Your task to perform on an android device: When is my next meeting? Image 0: 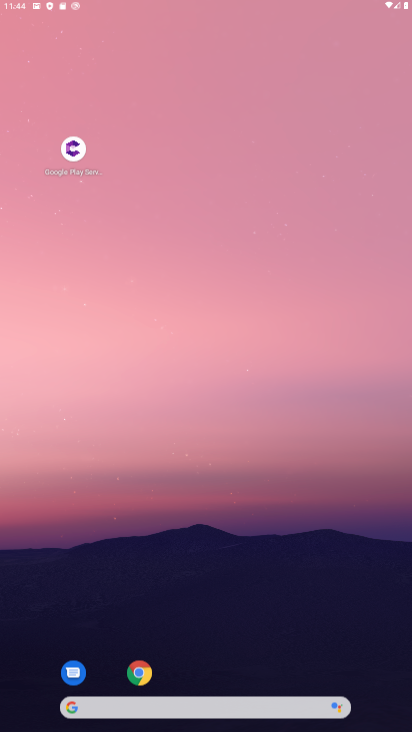
Step 0: press home button
Your task to perform on an android device: When is my next meeting? Image 1: 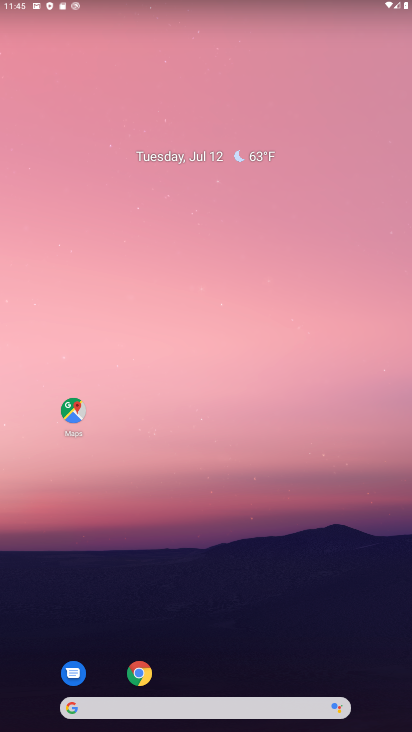
Step 1: drag from (252, 602) to (256, 115)
Your task to perform on an android device: When is my next meeting? Image 2: 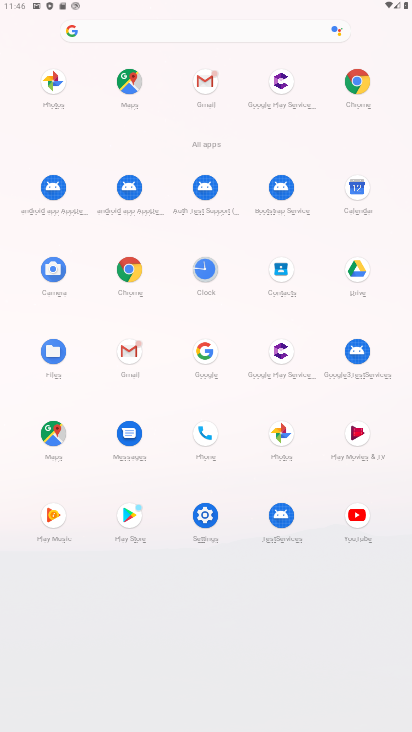
Step 2: click (365, 191)
Your task to perform on an android device: When is my next meeting? Image 3: 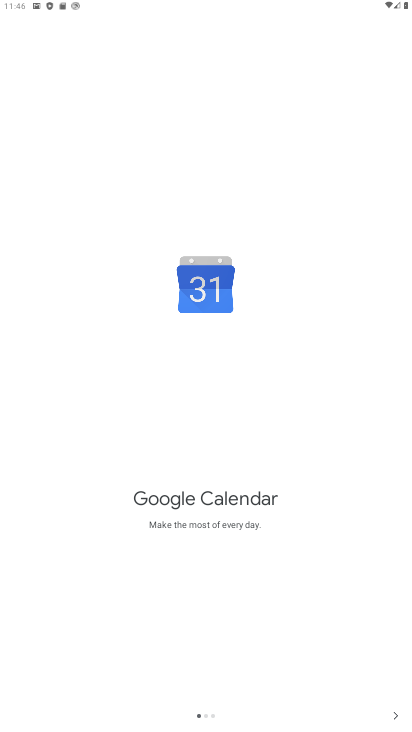
Step 3: click (391, 725)
Your task to perform on an android device: When is my next meeting? Image 4: 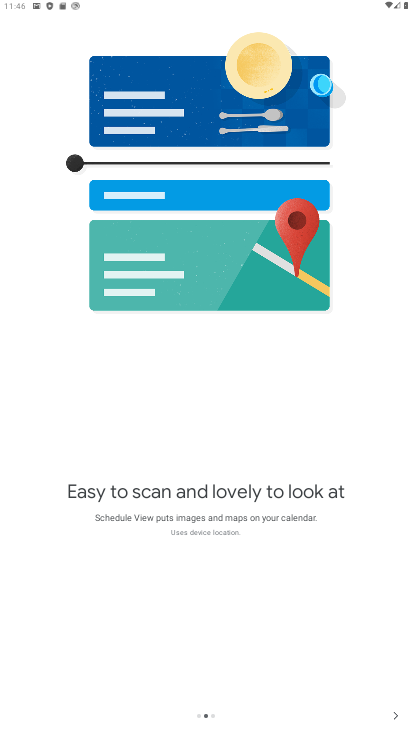
Step 4: click (391, 725)
Your task to perform on an android device: When is my next meeting? Image 5: 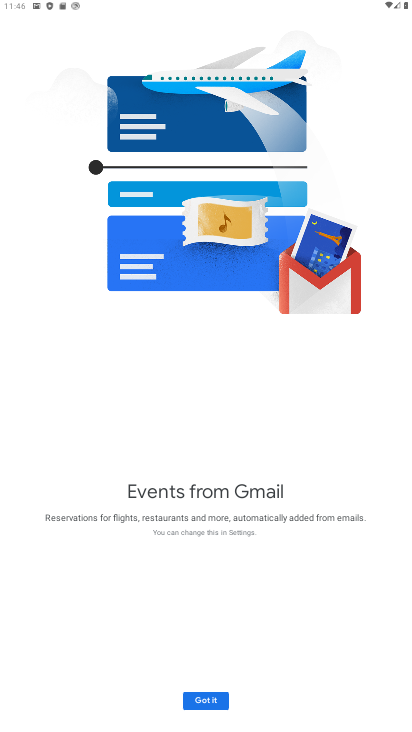
Step 5: click (193, 696)
Your task to perform on an android device: When is my next meeting? Image 6: 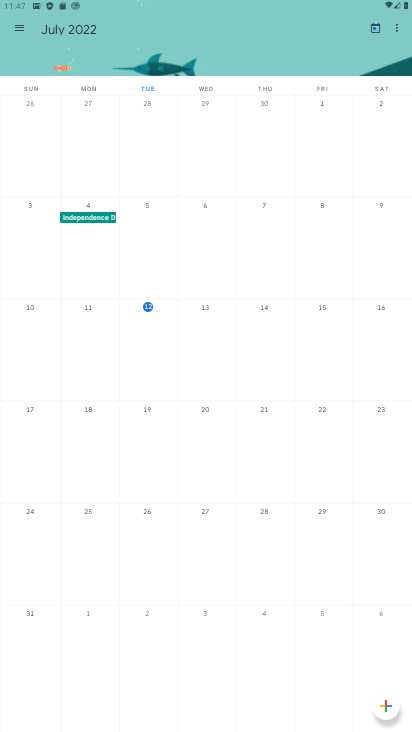
Step 6: click (22, 34)
Your task to perform on an android device: When is my next meeting? Image 7: 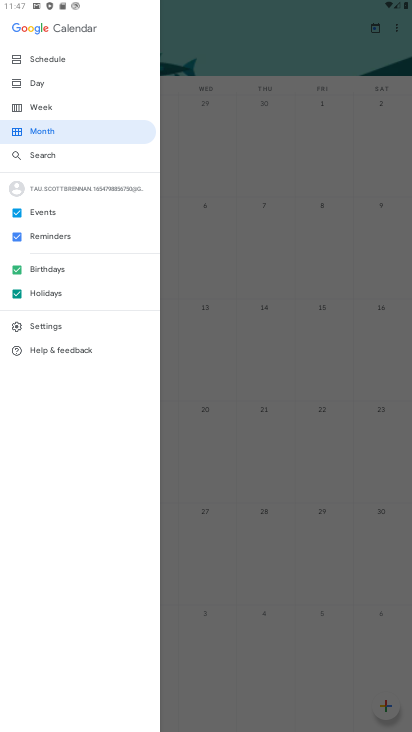
Step 7: click (27, 63)
Your task to perform on an android device: When is my next meeting? Image 8: 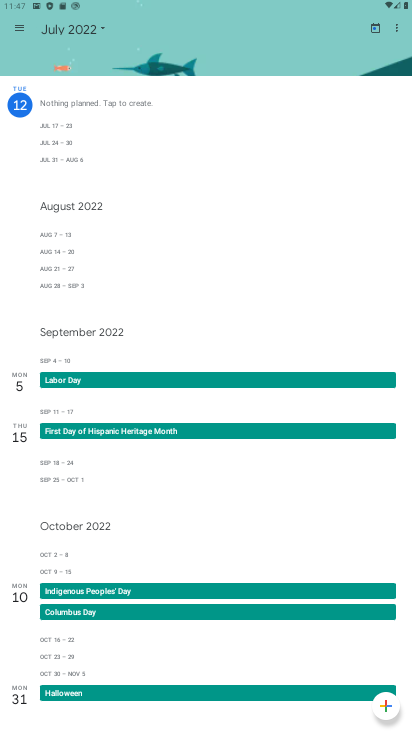
Step 8: task complete